Your task to perform on an android device: toggle translation in the chrome app Image 0: 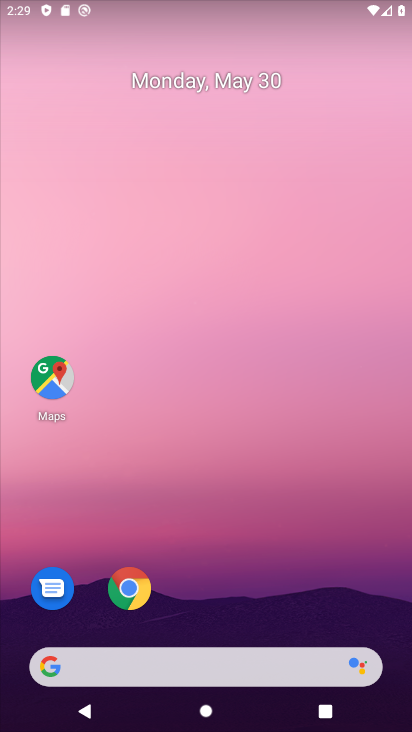
Step 0: drag from (200, 627) to (193, 266)
Your task to perform on an android device: toggle translation in the chrome app Image 1: 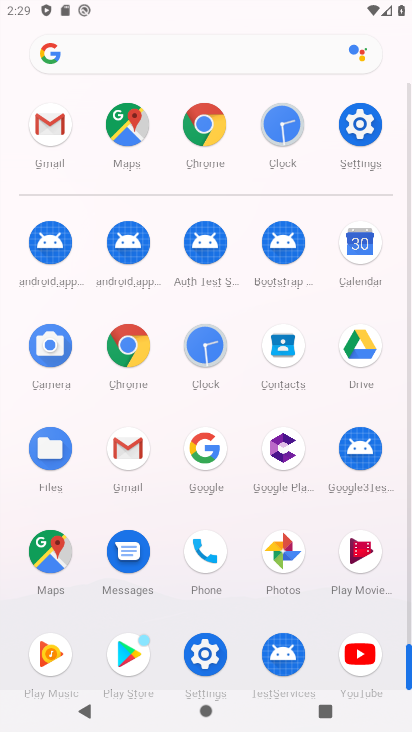
Step 1: click (118, 442)
Your task to perform on an android device: toggle translation in the chrome app Image 2: 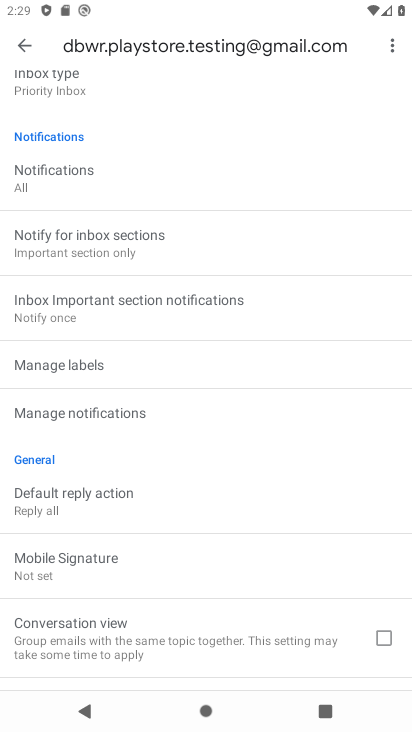
Step 2: press home button
Your task to perform on an android device: toggle translation in the chrome app Image 3: 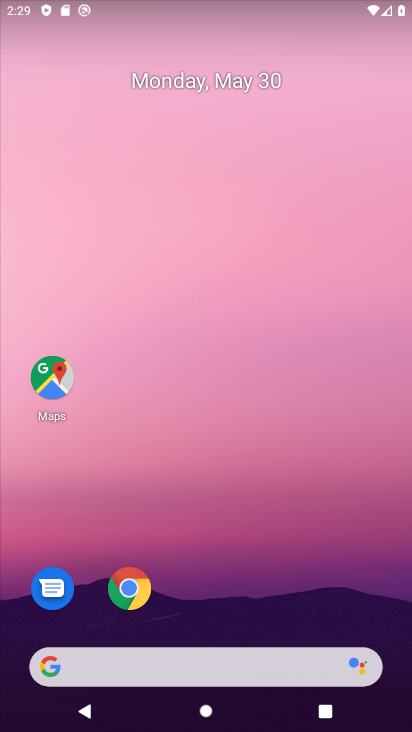
Step 3: drag from (192, 605) to (226, 196)
Your task to perform on an android device: toggle translation in the chrome app Image 4: 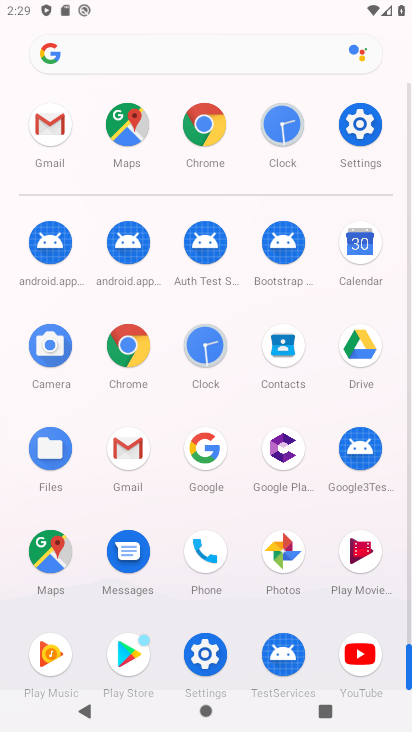
Step 4: click (132, 328)
Your task to perform on an android device: toggle translation in the chrome app Image 5: 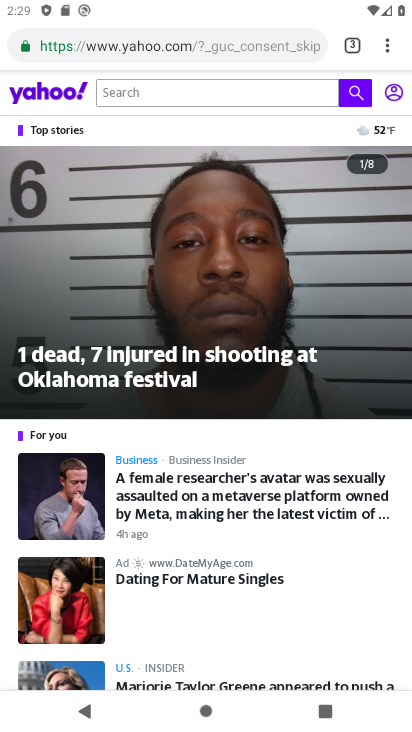
Step 5: click (384, 38)
Your task to perform on an android device: toggle translation in the chrome app Image 6: 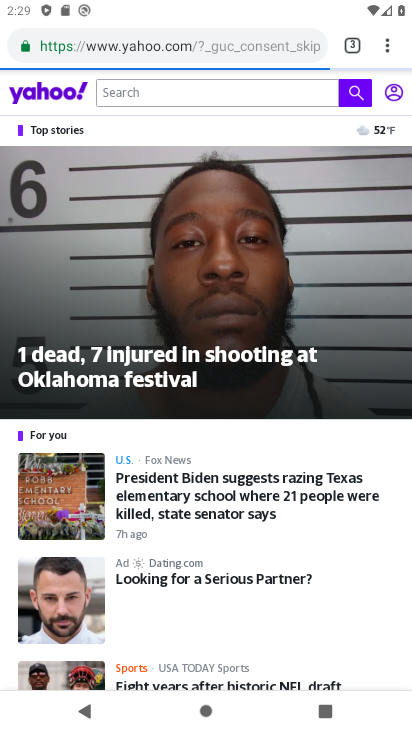
Step 6: click (392, 34)
Your task to perform on an android device: toggle translation in the chrome app Image 7: 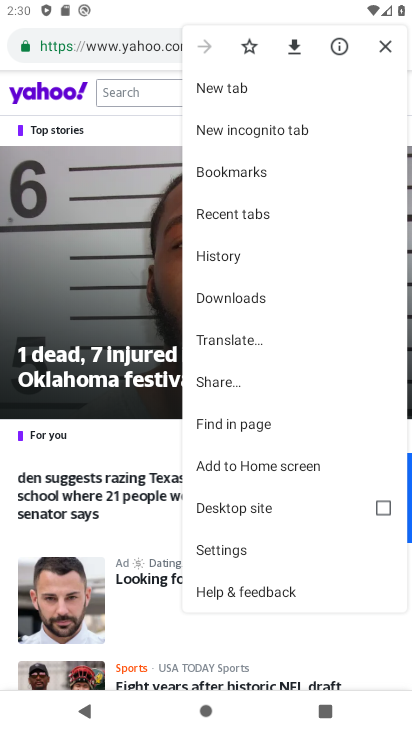
Step 7: click (253, 543)
Your task to perform on an android device: toggle translation in the chrome app Image 8: 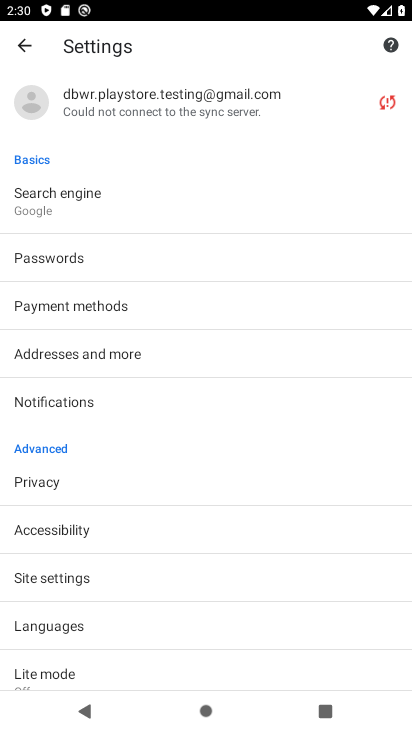
Step 8: click (74, 632)
Your task to perform on an android device: toggle translation in the chrome app Image 9: 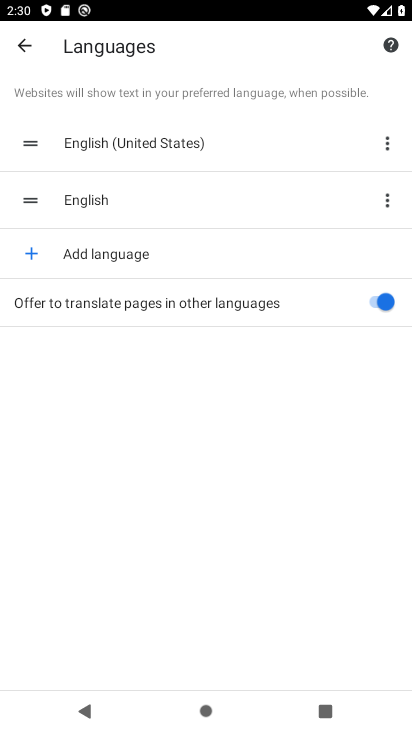
Step 9: click (384, 301)
Your task to perform on an android device: toggle translation in the chrome app Image 10: 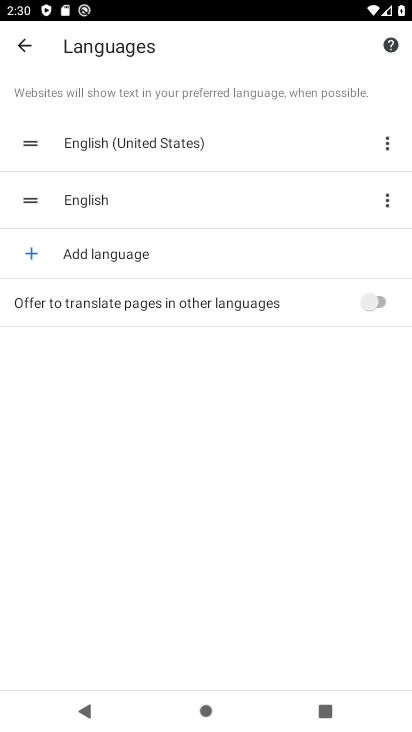
Step 10: task complete